Your task to perform on an android device: Go to Wikipedia Image 0: 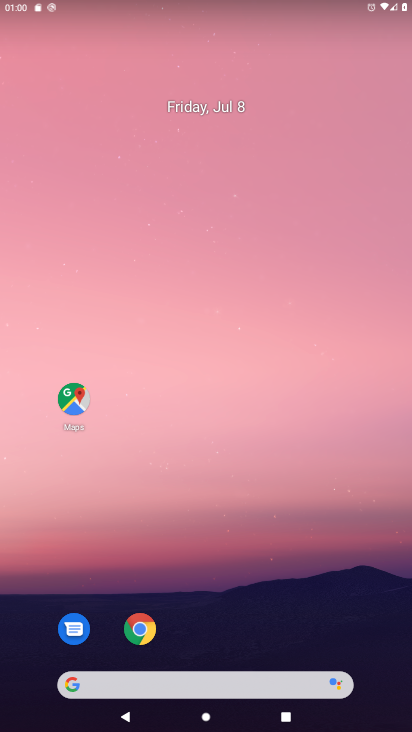
Step 0: click (143, 628)
Your task to perform on an android device: Go to Wikipedia Image 1: 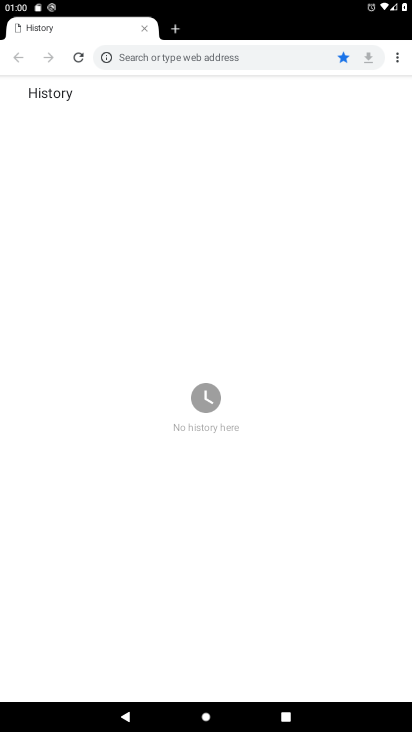
Step 1: click (177, 26)
Your task to perform on an android device: Go to Wikipedia Image 2: 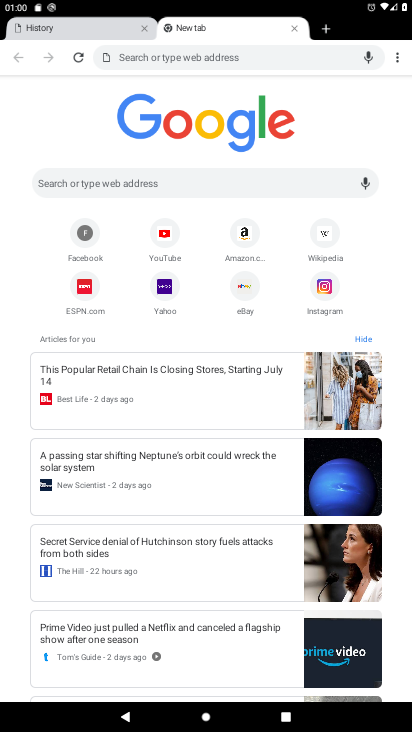
Step 2: click (318, 234)
Your task to perform on an android device: Go to Wikipedia Image 3: 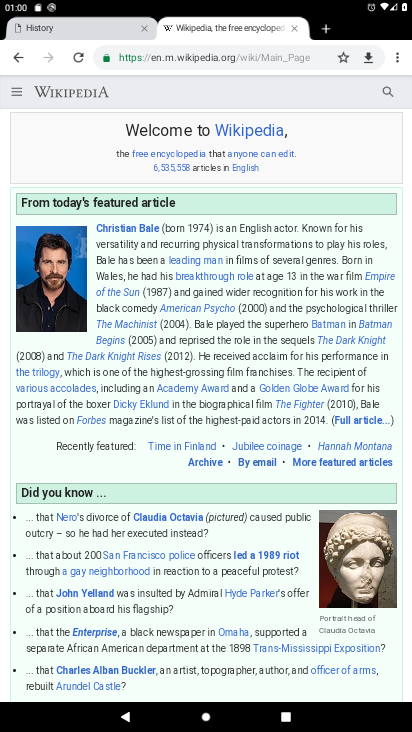
Step 3: task complete